Your task to perform on an android device: turn on location history Image 0: 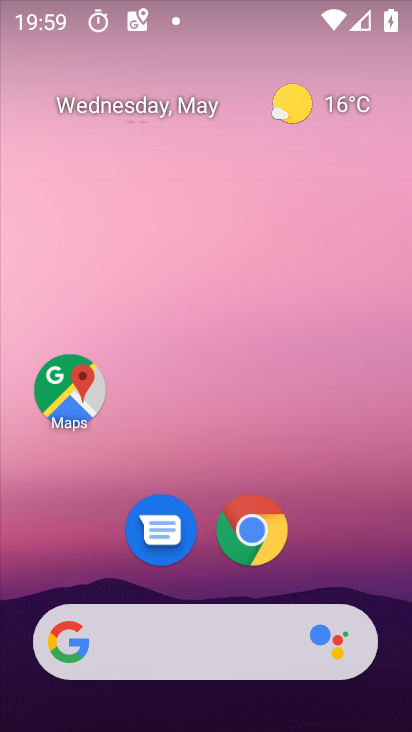
Step 0: drag from (198, 589) to (238, 157)
Your task to perform on an android device: turn on location history Image 1: 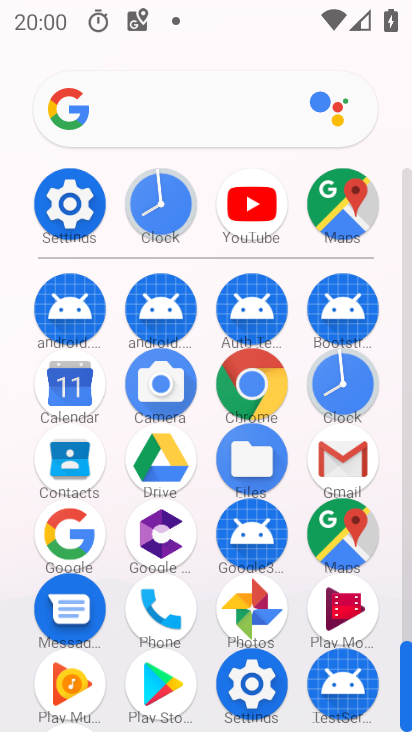
Step 1: click (65, 202)
Your task to perform on an android device: turn on location history Image 2: 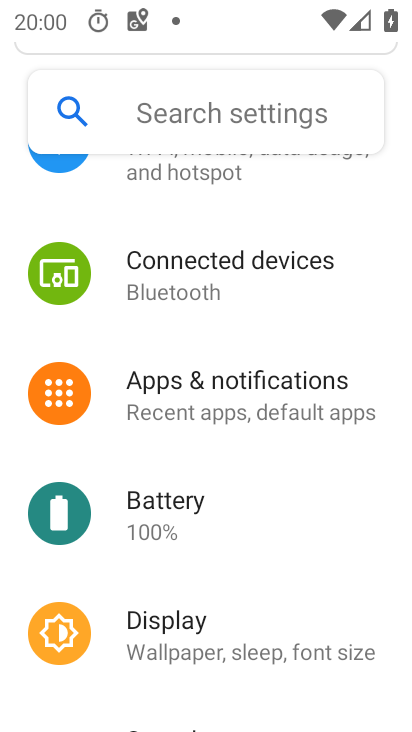
Step 2: drag from (249, 511) to (295, 115)
Your task to perform on an android device: turn on location history Image 3: 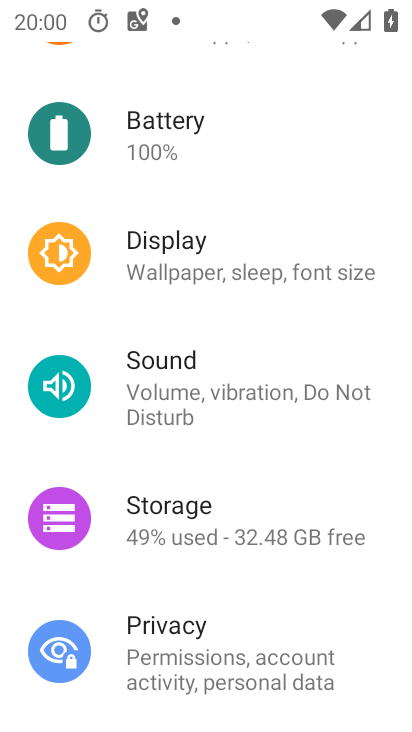
Step 3: drag from (249, 585) to (290, 297)
Your task to perform on an android device: turn on location history Image 4: 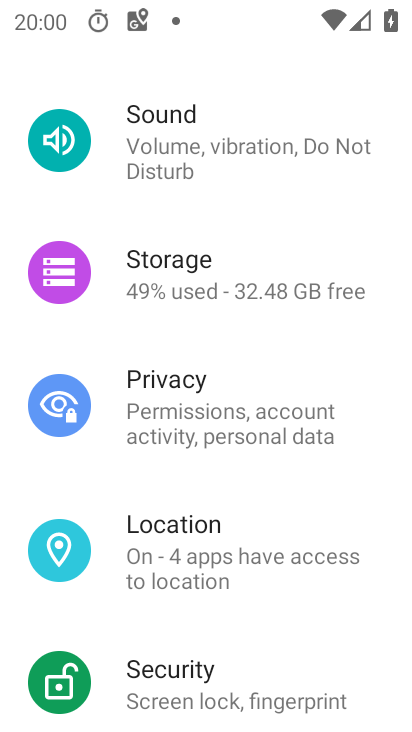
Step 4: click (185, 537)
Your task to perform on an android device: turn on location history Image 5: 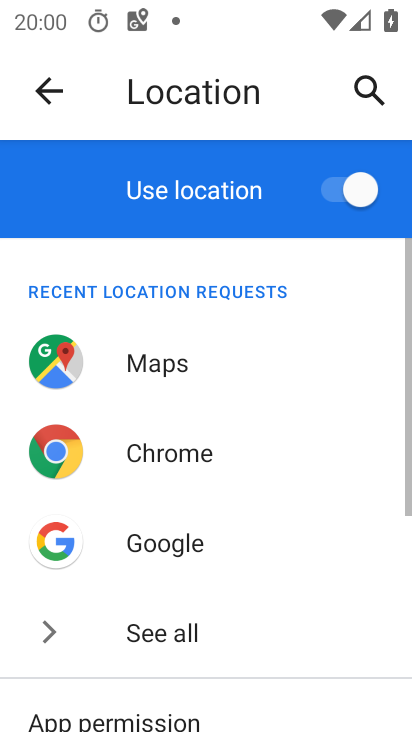
Step 5: drag from (224, 661) to (278, 289)
Your task to perform on an android device: turn on location history Image 6: 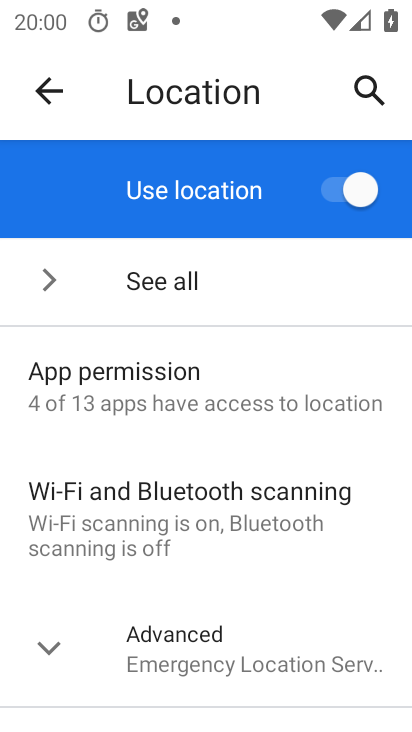
Step 6: drag from (241, 592) to (268, 368)
Your task to perform on an android device: turn on location history Image 7: 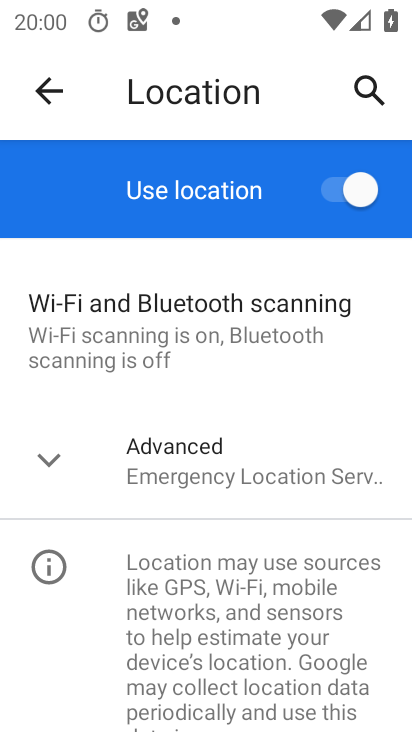
Step 7: click (61, 456)
Your task to perform on an android device: turn on location history Image 8: 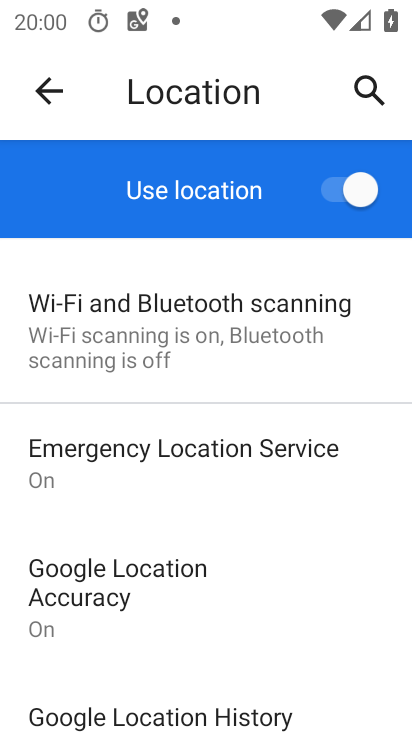
Step 8: drag from (232, 555) to (251, 338)
Your task to perform on an android device: turn on location history Image 9: 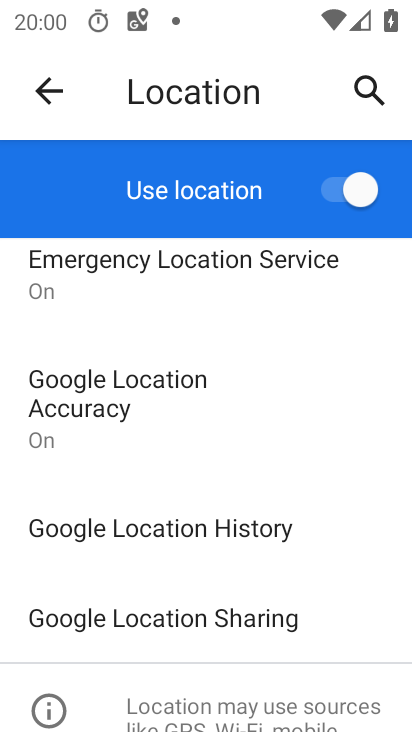
Step 9: click (174, 526)
Your task to perform on an android device: turn on location history Image 10: 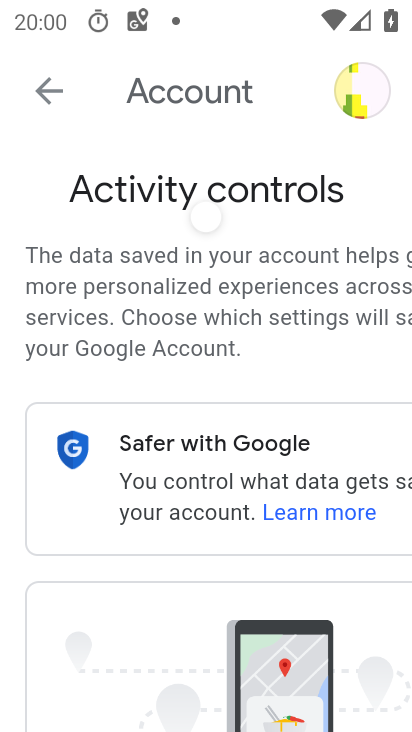
Step 10: task complete